Your task to perform on an android device: turn pop-ups on in chrome Image 0: 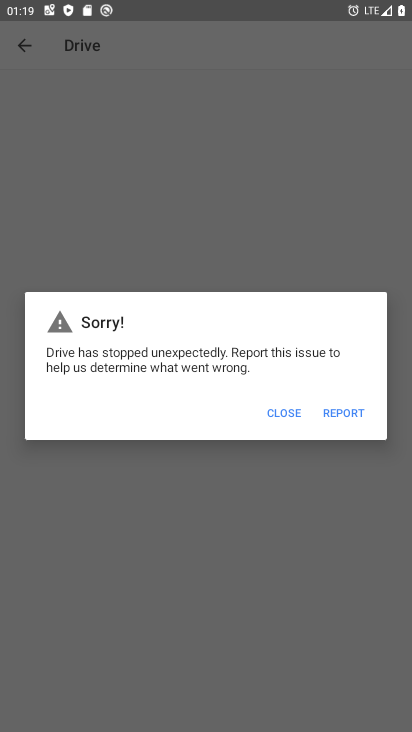
Step 0: press home button
Your task to perform on an android device: turn pop-ups on in chrome Image 1: 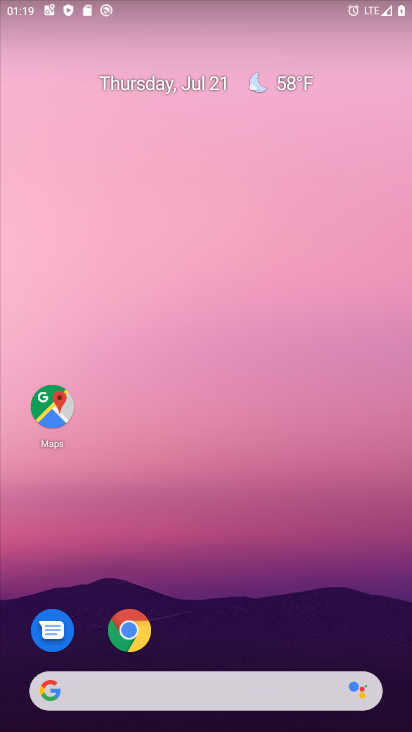
Step 1: click (106, 633)
Your task to perform on an android device: turn pop-ups on in chrome Image 2: 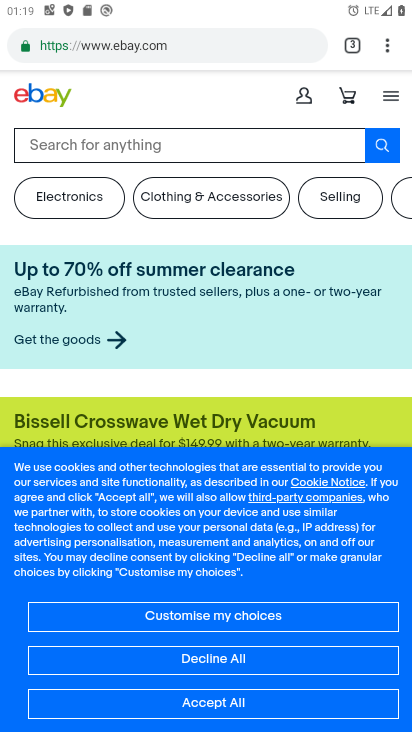
Step 2: click (392, 40)
Your task to perform on an android device: turn pop-ups on in chrome Image 3: 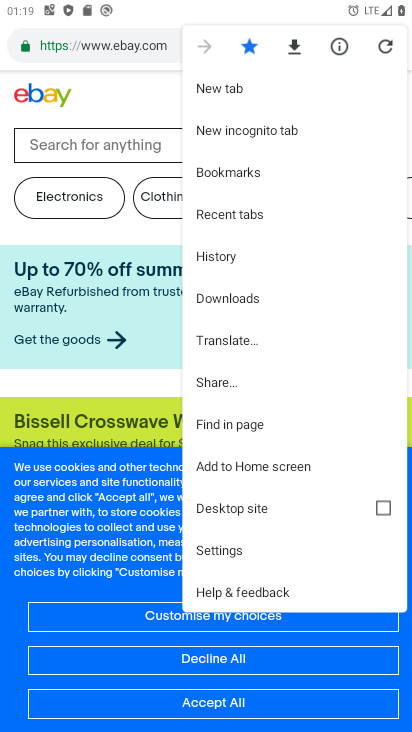
Step 3: click (253, 546)
Your task to perform on an android device: turn pop-ups on in chrome Image 4: 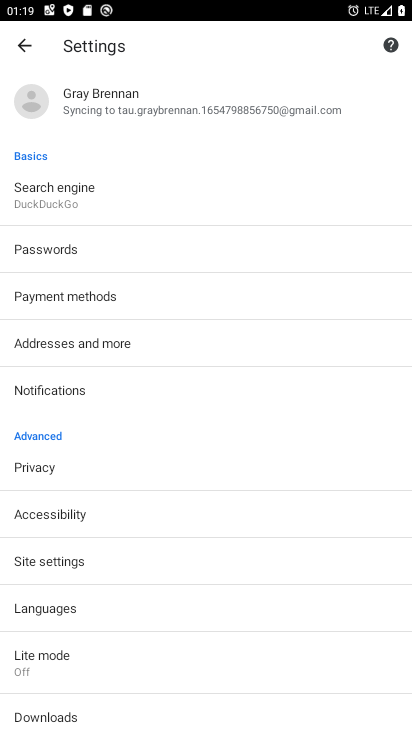
Step 4: click (69, 556)
Your task to perform on an android device: turn pop-ups on in chrome Image 5: 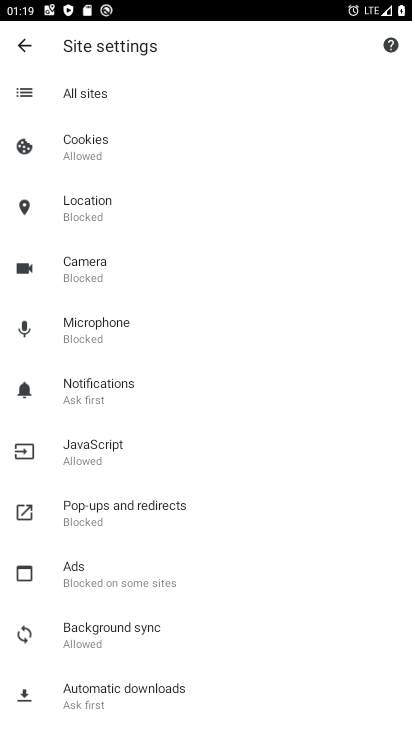
Step 5: click (128, 513)
Your task to perform on an android device: turn pop-ups on in chrome Image 6: 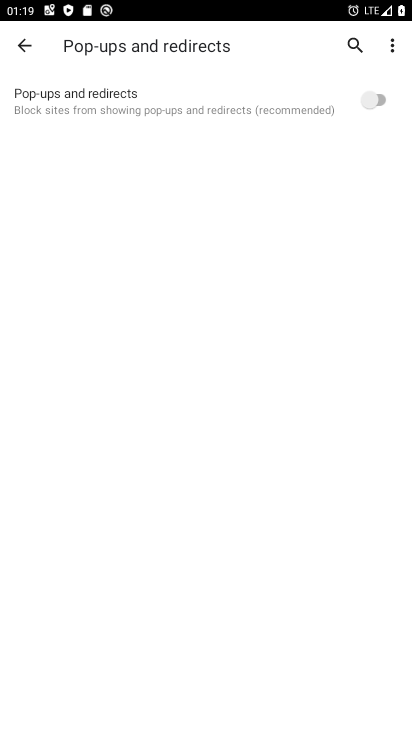
Step 6: click (384, 104)
Your task to perform on an android device: turn pop-ups on in chrome Image 7: 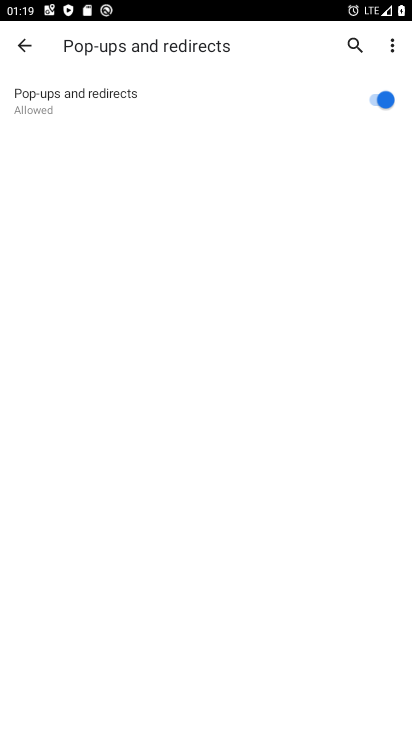
Step 7: task complete